Your task to perform on an android device: toggle notification dots Image 0: 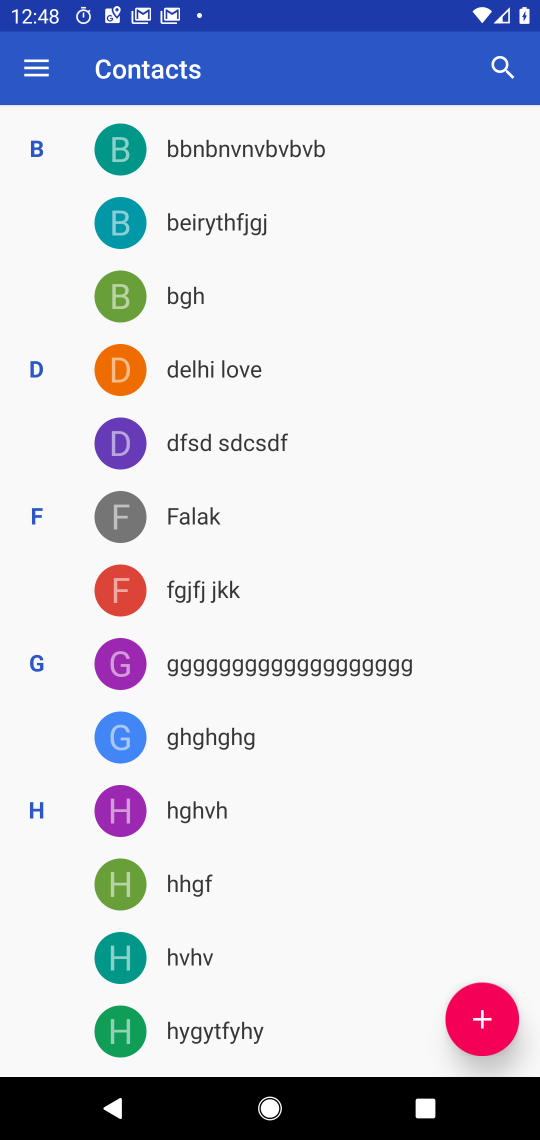
Step 0: press home button
Your task to perform on an android device: toggle notification dots Image 1: 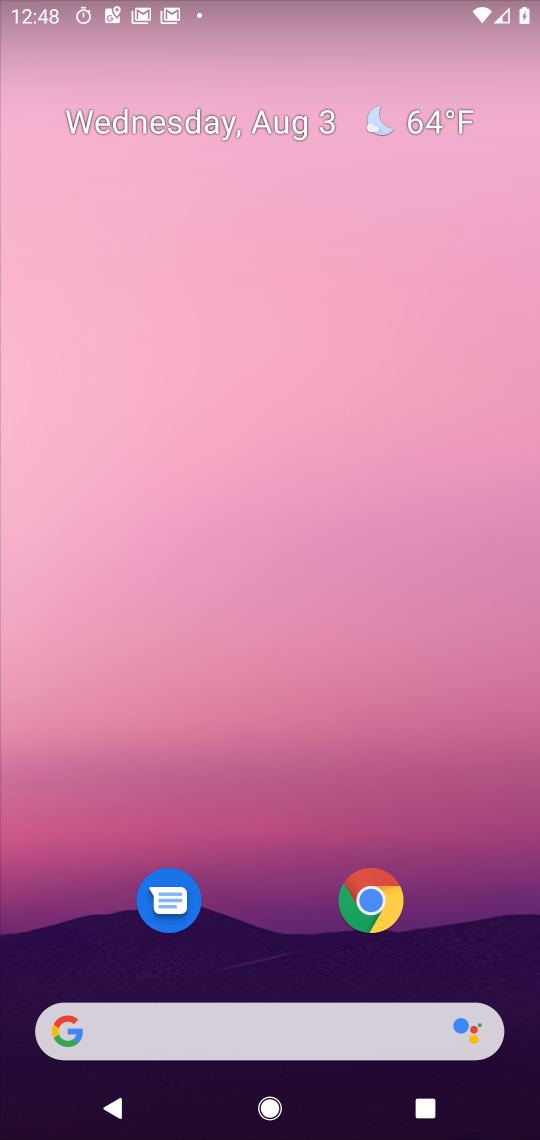
Step 1: drag from (291, 471) to (318, 124)
Your task to perform on an android device: toggle notification dots Image 2: 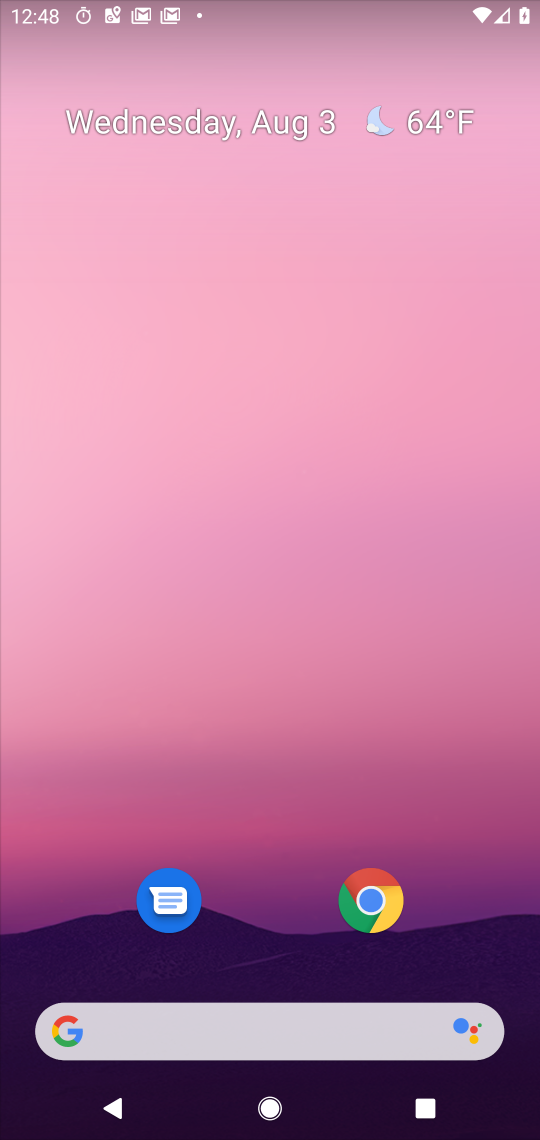
Step 2: drag from (259, 929) to (379, 151)
Your task to perform on an android device: toggle notification dots Image 3: 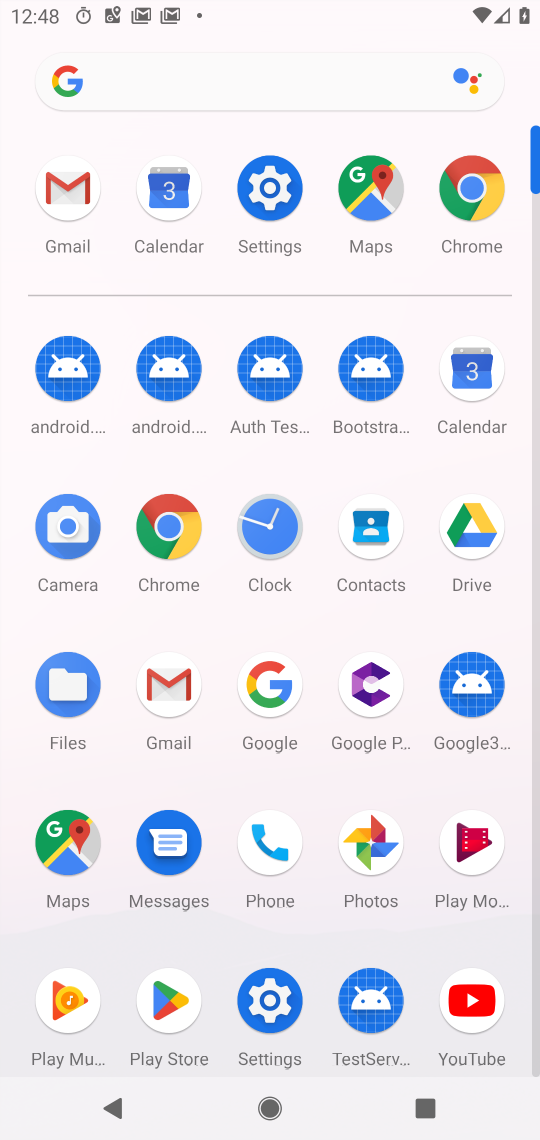
Step 3: click (262, 177)
Your task to perform on an android device: toggle notification dots Image 4: 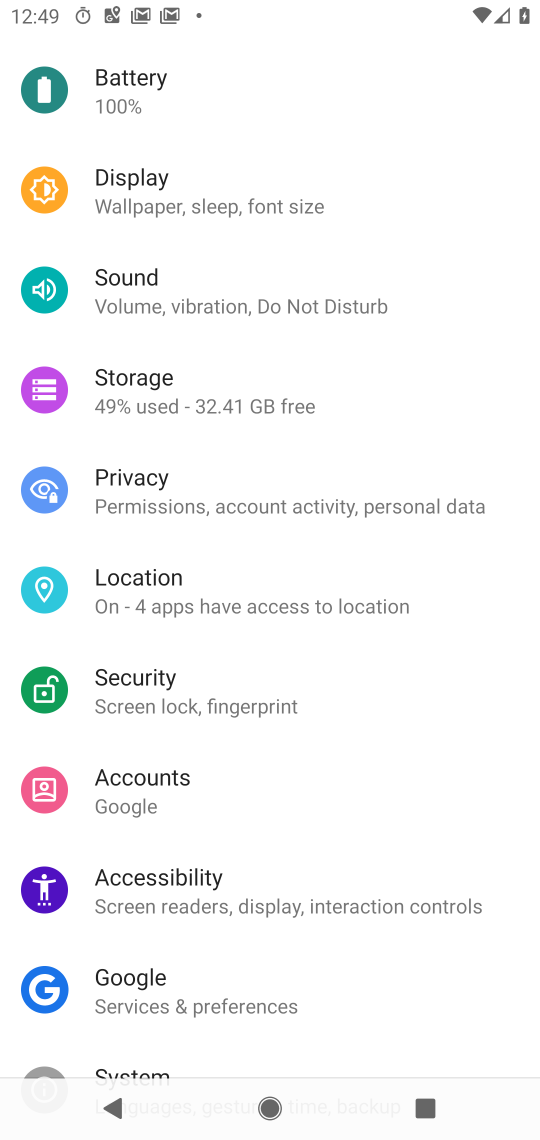
Step 4: drag from (470, 881) to (494, 385)
Your task to perform on an android device: toggle notification dots Image 5: 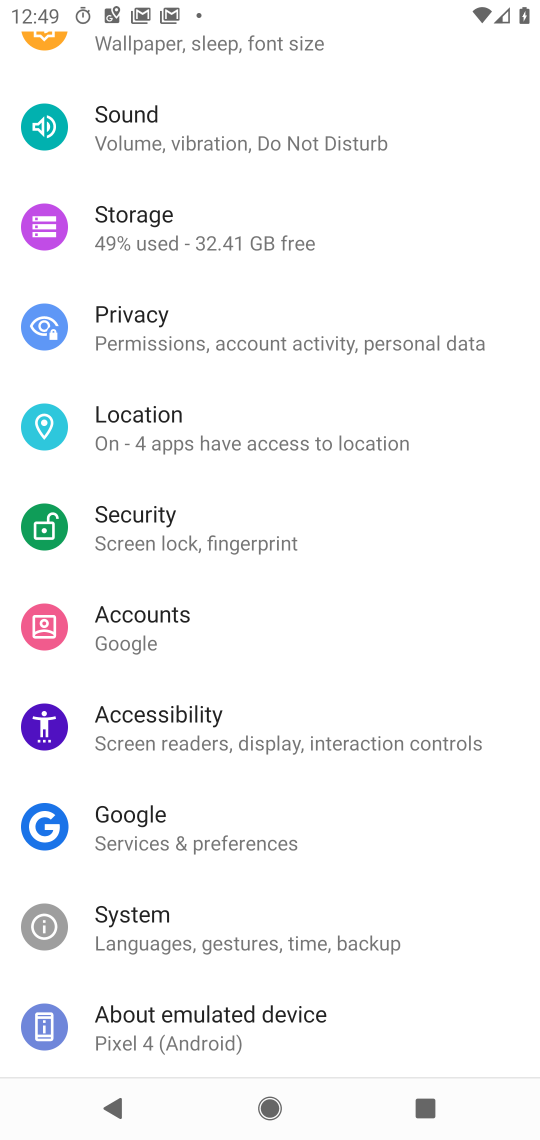
Step 5: drag from (395, 192) to (427, 1136)
Your task to perform on an android device: toggle notification dots Image 6: 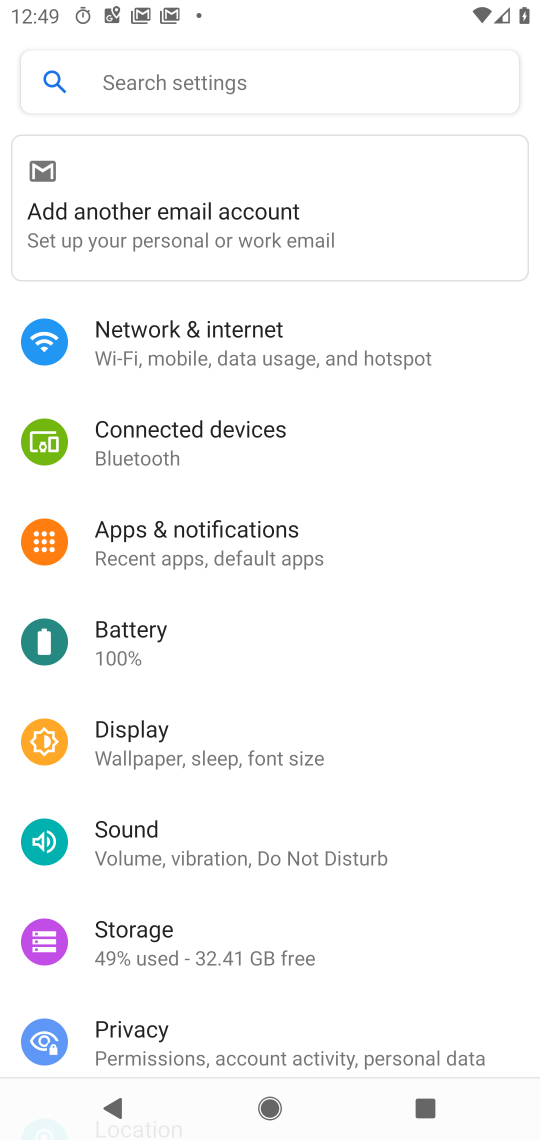
Step 6: click (219, 527)
Your task to perform on an android device: toggle notification dots Image 7: 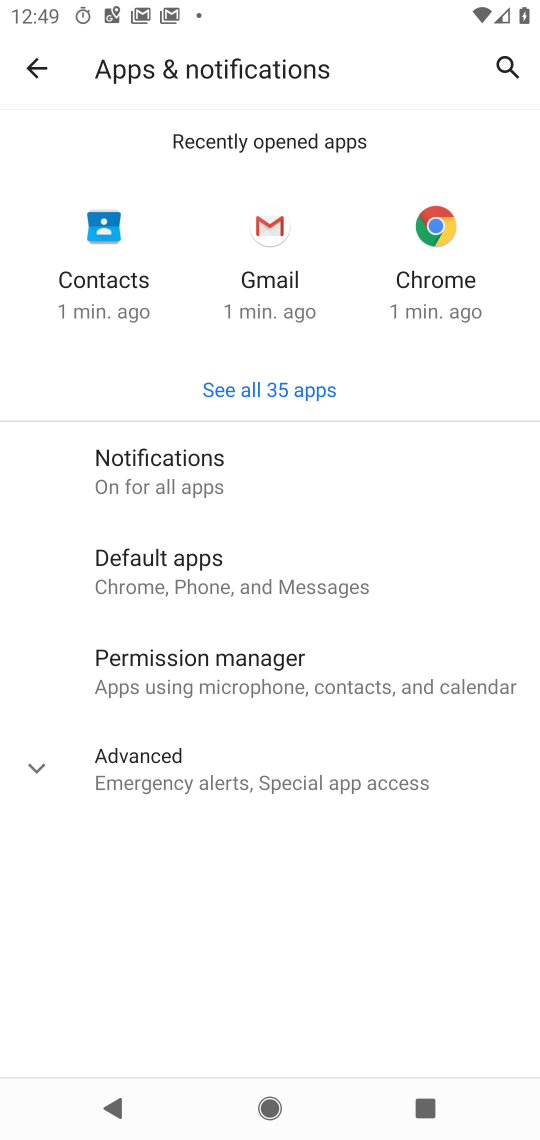
Step 7: click (192, 497)
Your task to perform on an android device: toggle notification dots Image 8: 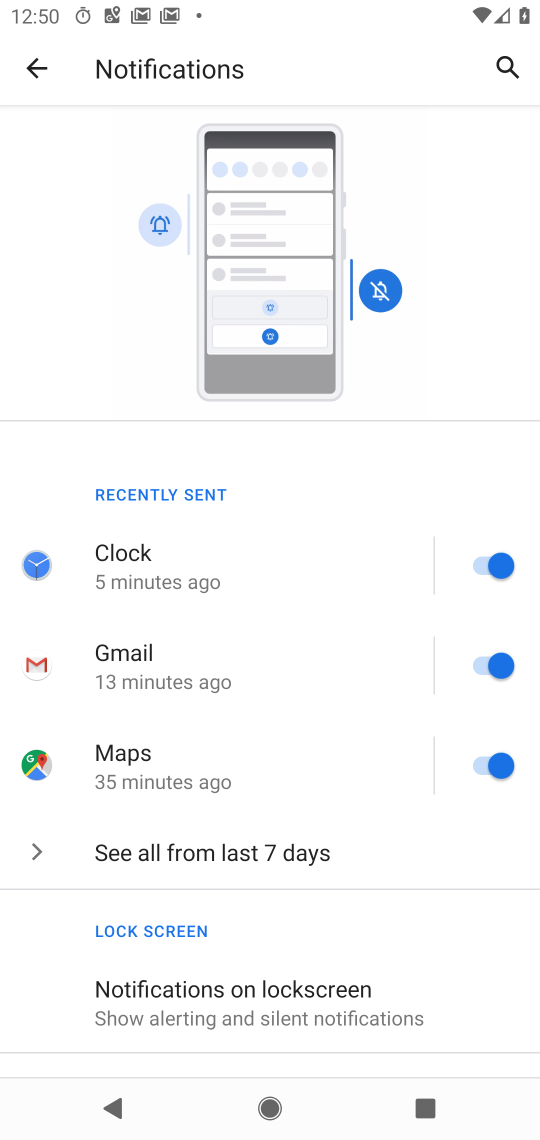
Step 8: drag from (322, 943) to (360, 26)
Your task to perform on an android device: toggle notification dots Image 9: 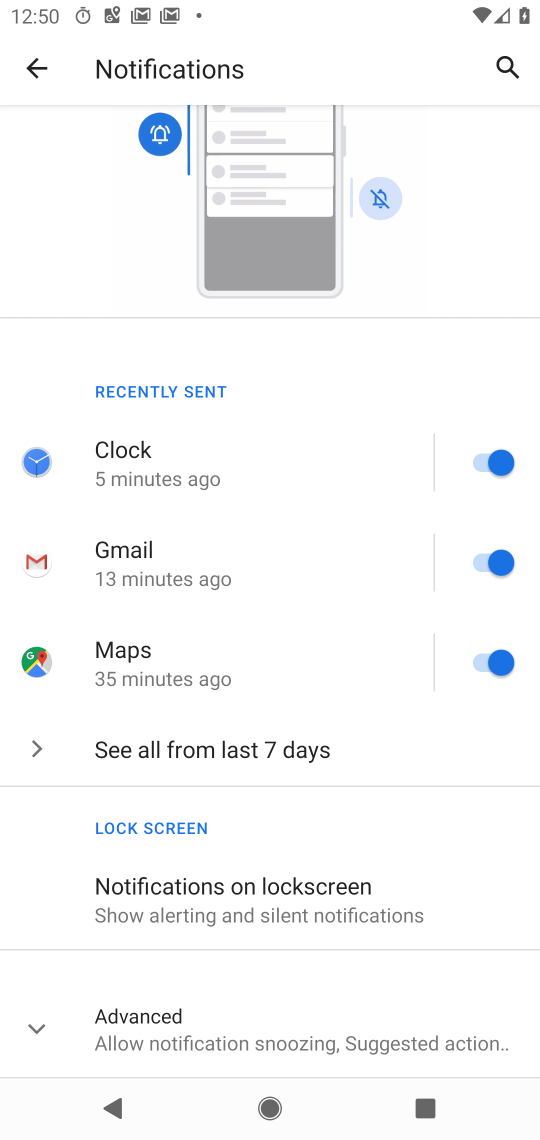
Step 9: click (208, 1027)
Your task to perform on an android device: toggle notification dots Image 10: 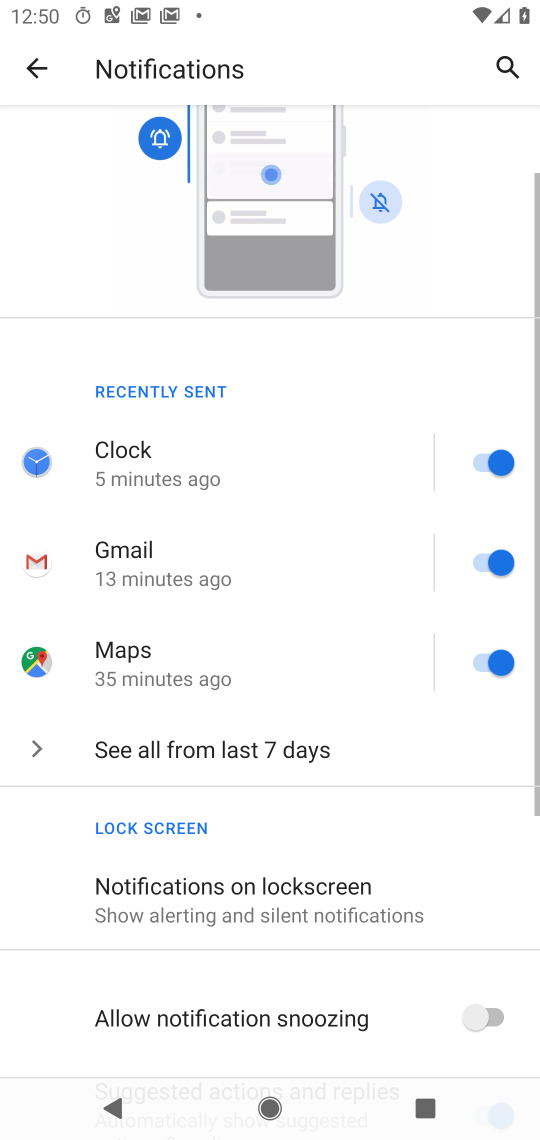
Step 10: drag from (372, 913) to (357, 15)
Your task to perform on an android device: toggle notification dots Image 11: 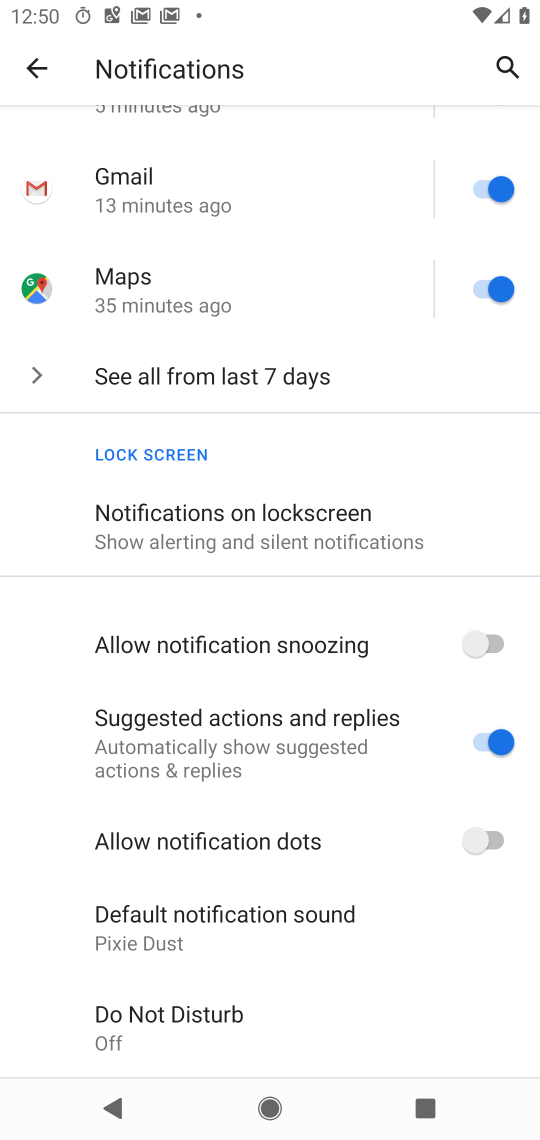
Step 11: click (472, 835)
Your task to perform on an android device: toggle notification dots Image 12: 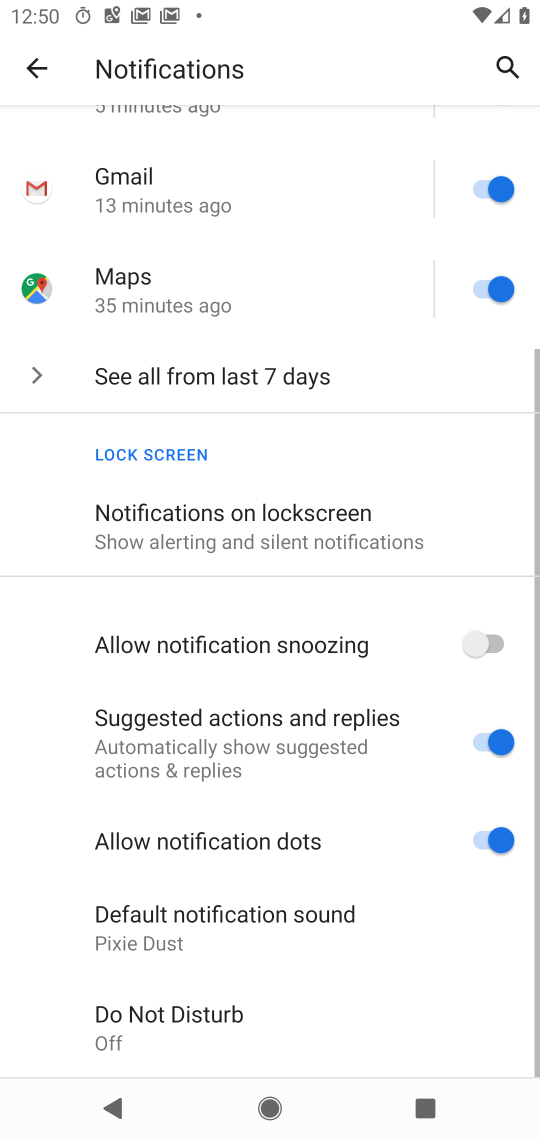
Step 12: task complete